Your task to perform on an android device: toggle translation in the chrome app Image 0: 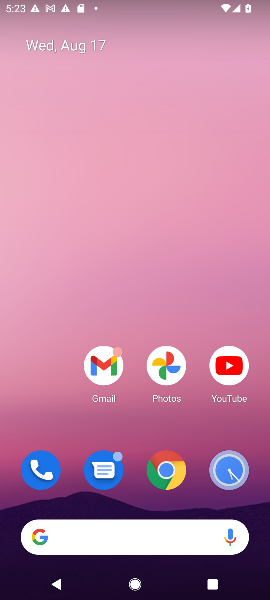
Step 0: click (166, 474)
Your task to perform on an android device: toggle translation in the chrome app Image 1: 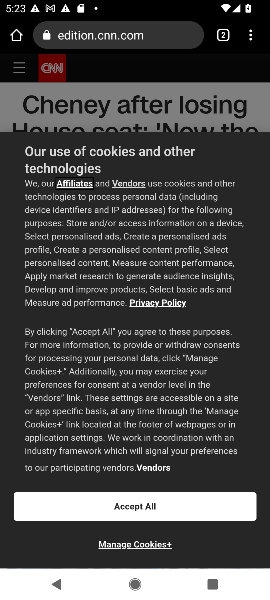
Step 1: click (252, 32)
Your task to perform on an android device: toggle translation in the chrome app Image 2: 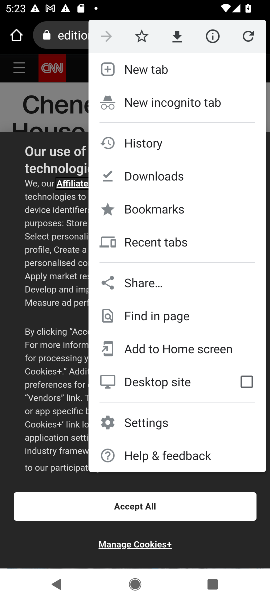
Step 2: click (164, 427)
Your task to perform on an android device: toggle translation in the chrome app Image 3: 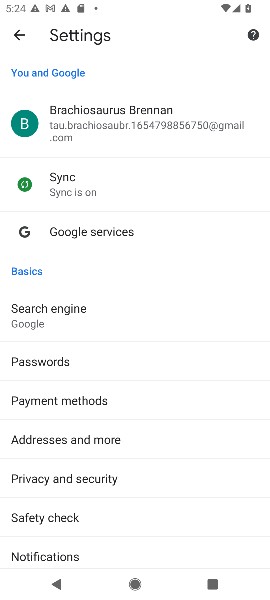
Step 3: drag from (88, 519) to (105, 211)
Your task to perform on an android device: toggle translation in the chrome app Image 4: 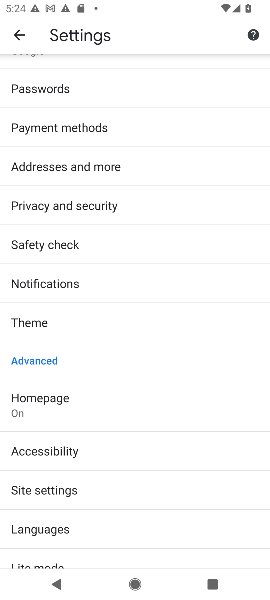
Step 4: click (55, 537)
Your task to perform on an android device: toggle translation in the chrome app Image 5: 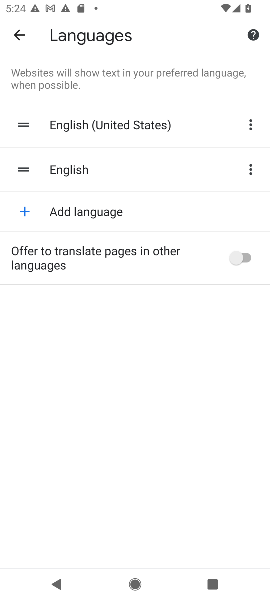
Step 5: click (216, 256)
Your task to perform on an android device: toggle translation in the chrome app Image 6: 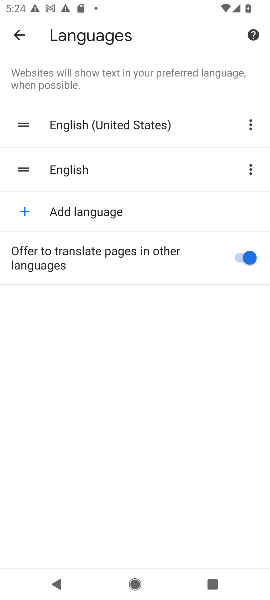
Step 6: task complete